Your task to perform on an android device: delete browsing data in the chrome app Image 0: 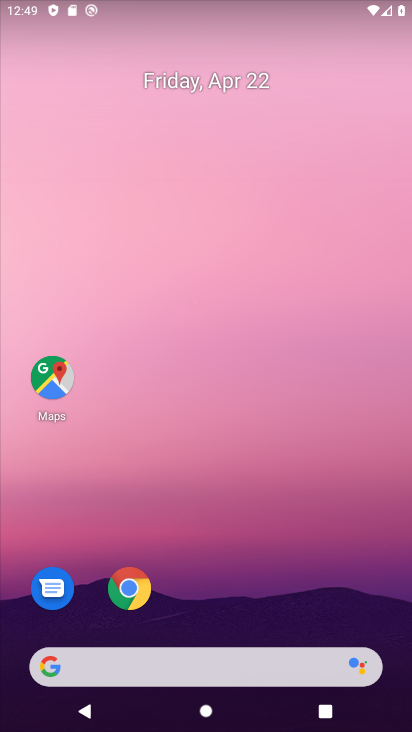
Step 0: drag from (278, 669) to (290, 153)
Your task to perform on an android device: delete browsing data in the chrome app Image 1: 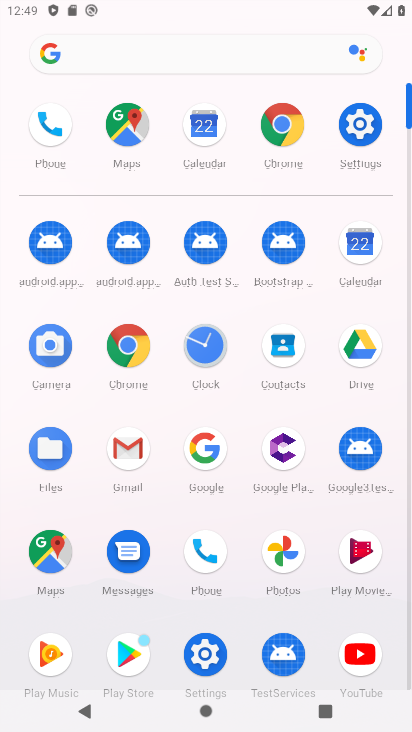
Step 1: click (128, 334)
Your task to perform on an android device: delete browsing data in the chrome app Image 2: 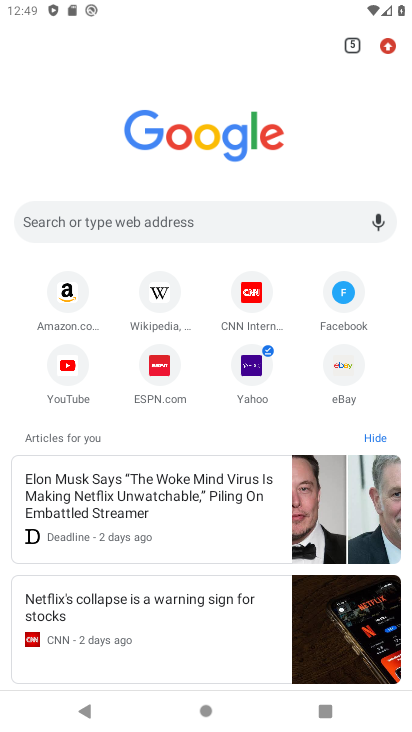
Step 2: click (390, 45)
Your task to perform on an android device: delete browsing data in the chrome app Image 3: 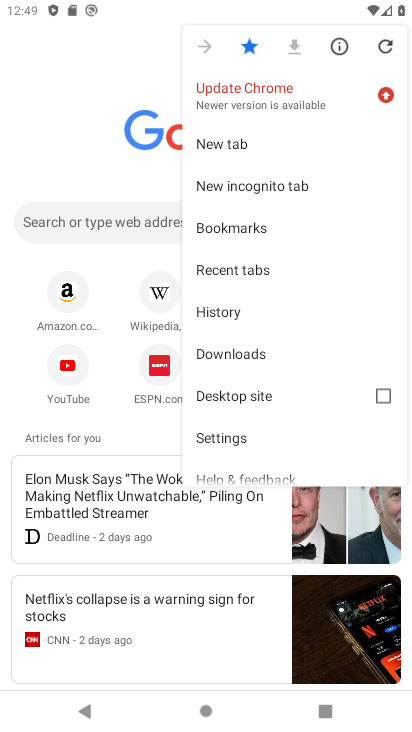
Step 3: click (219, 431)
Your task to perform on an android device: delete browsing data in the chrome app Image 4: 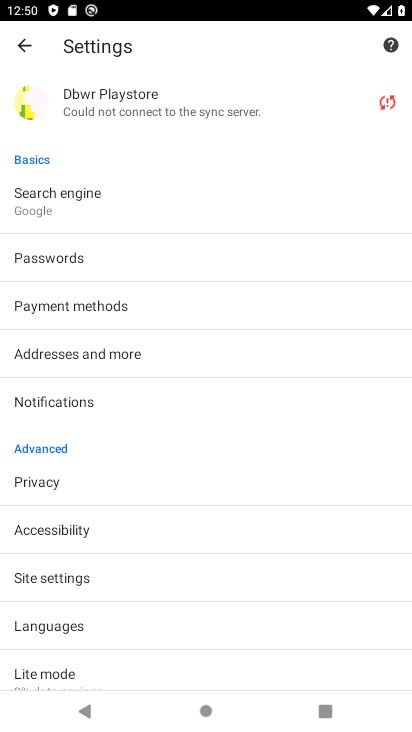
Step 4: click (59, 478)
Your task to perform on an android device: delete browsing data in the chrome app Image 5: 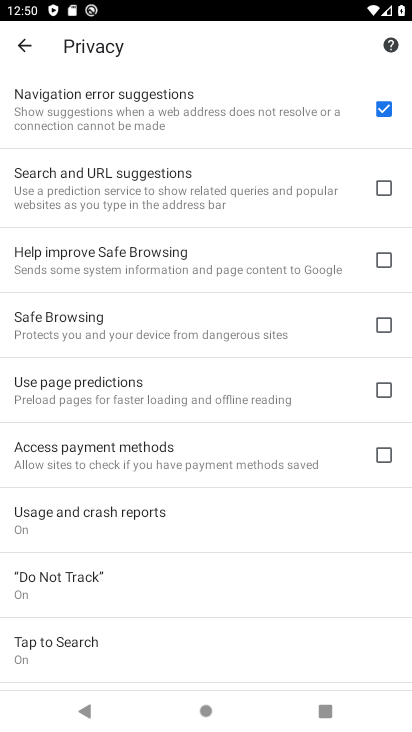
Step 5: drag from (145, 611) to (138, 344)
Your task to perform on an android device: delete browsing data in the chrome app Image 6: 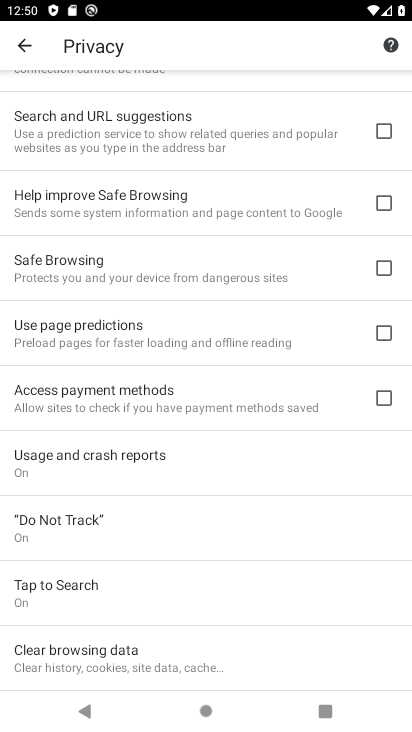
Step 6: click (109, 652)
Your task to perform on an android device: delete browsing data in the chrome app Image 7: 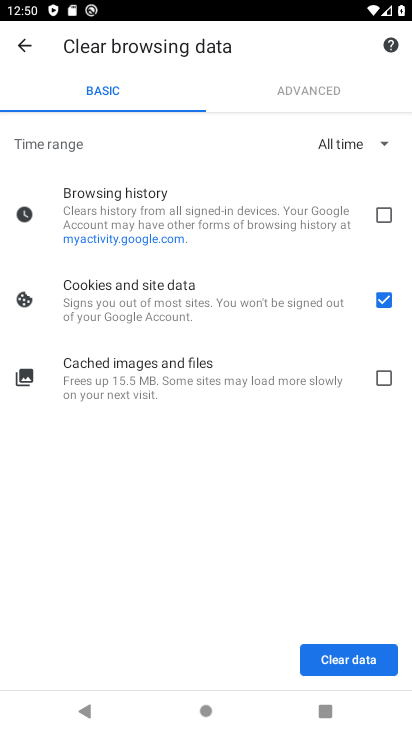
Step 7: click (375, 217)
Your task to perform on an android device: delete browsing data in the chrome app Image 8: 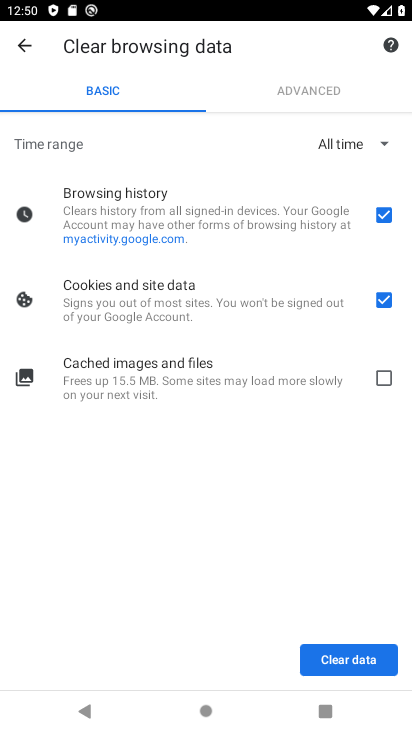
Step 8: click (380, 295)
Your task to perform on an android device: delete browsing data in the chrome app Image 9: 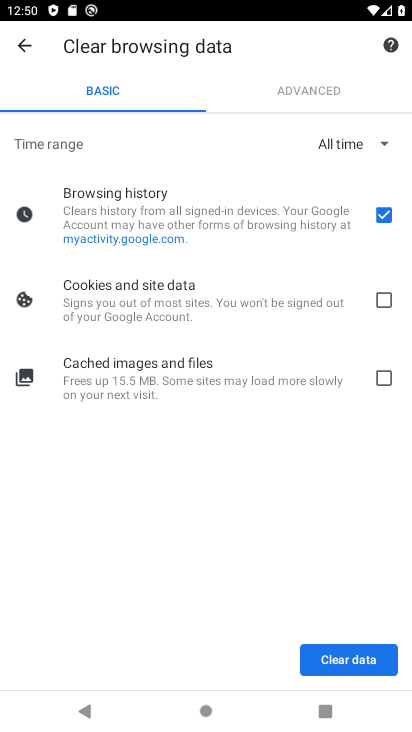
Step 9: click (316, 665)
Your task to perform on an android device: delete browsing data in the chrome app Image 10: 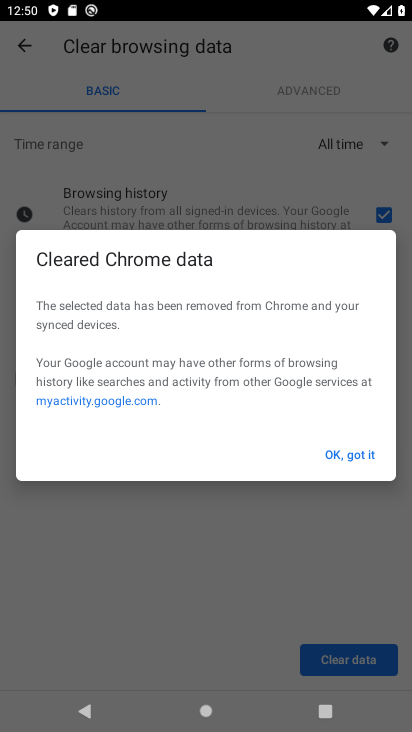
Step 10: click (351, 460)
Your task to perform on an android device: delete browsing data in the chrome app Image 11: 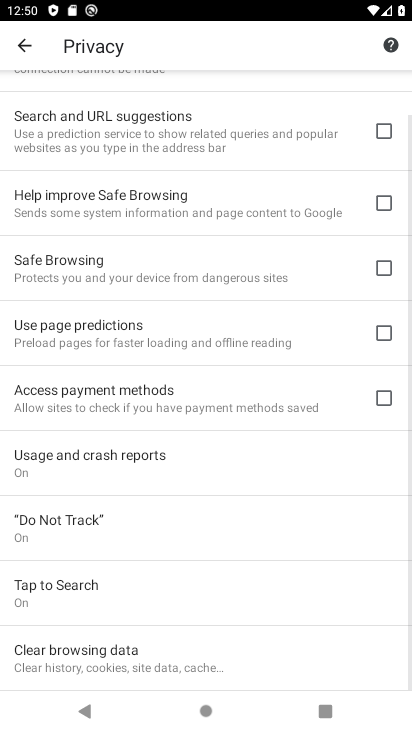
Step 11: task complete